Your task to perform on an android device: Open the web browser Image 0: 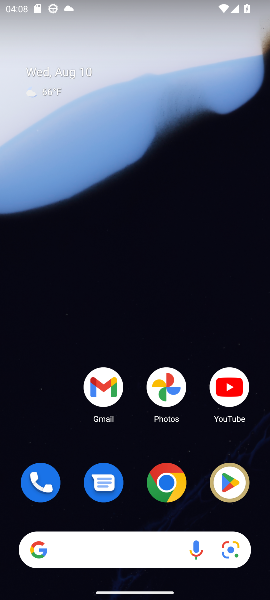
Step 0: click (174, 485)
Your task to perform on an android device: Open the web browser Image 1: 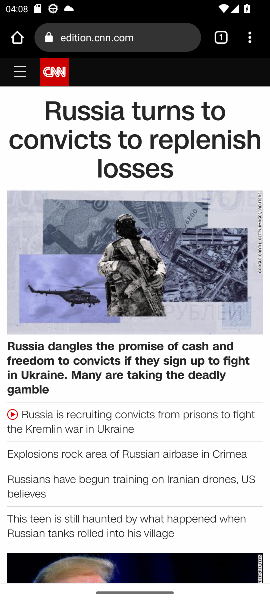
Step 1: click (148, 42)
Your task to perform on an android device: Open the web browser Image 2: 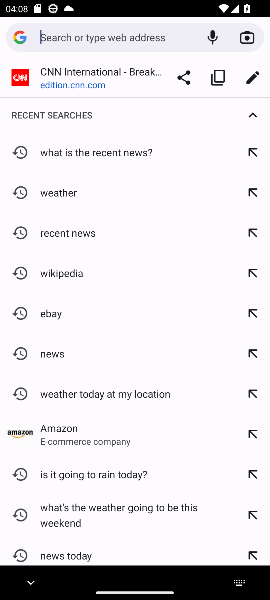
Step 2: type "web browser"
Your task to perform on an android device: Open the web browser Image 3: 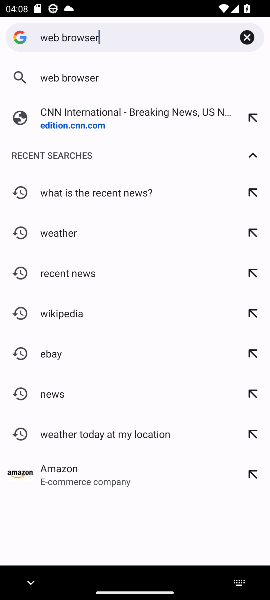
Step 3: type ""
Your task to perform on an android device: Open the web browser Image 4: 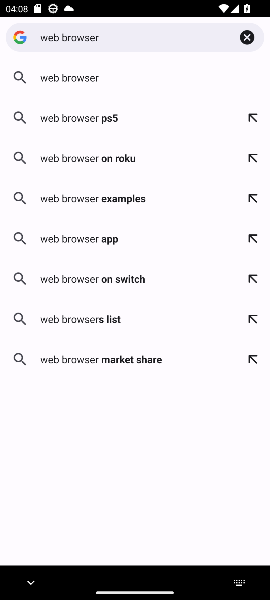
Step 4: click (57, 75)
Your task to perform on an android device: Open the web browser Image 5: 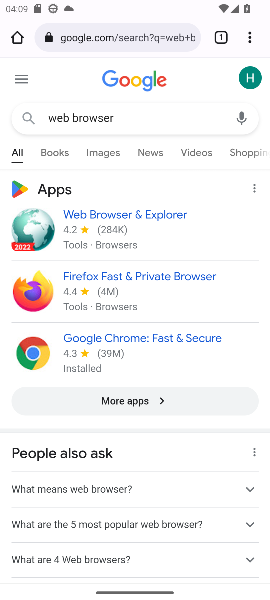
Step 5: task complete